Your task to perform on an android device: Show me popular videos on Youtube Image 0: 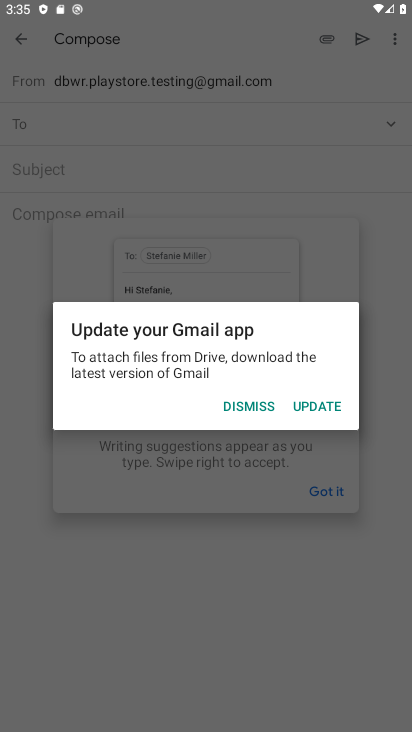
Step 0: press back button
Your task to perform on an android device: Show me popular videos on Youtube Image 1: 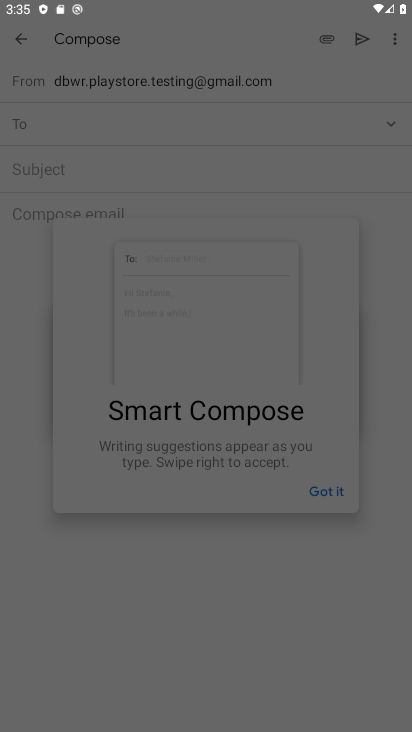
Step 1: press home button
Your task to perform on an android device: Show me popular videos on Youtube Image 2: 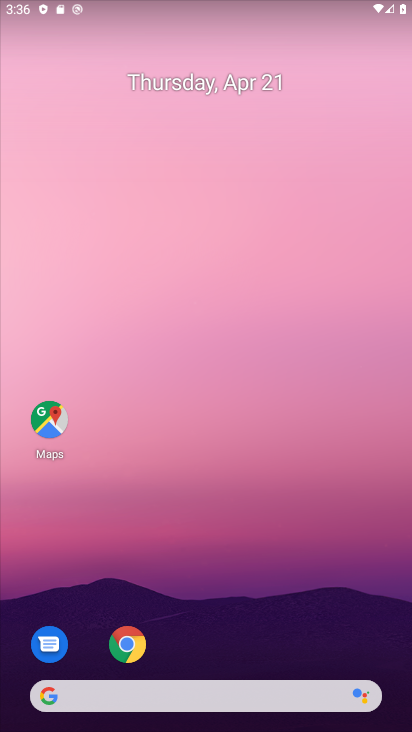
Step 2: drag from (200, 343) to (208, 255)
Your task to perform on an android device: Show me popular videos on Youtube Image 3: 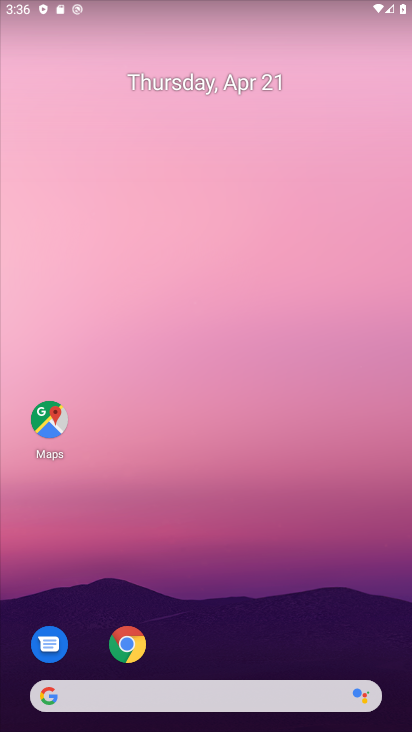
Step 3: drag from (240, 630) to (259, 209)
Your task to perform on an android device: Show me popular videos on Youtube Image 4: 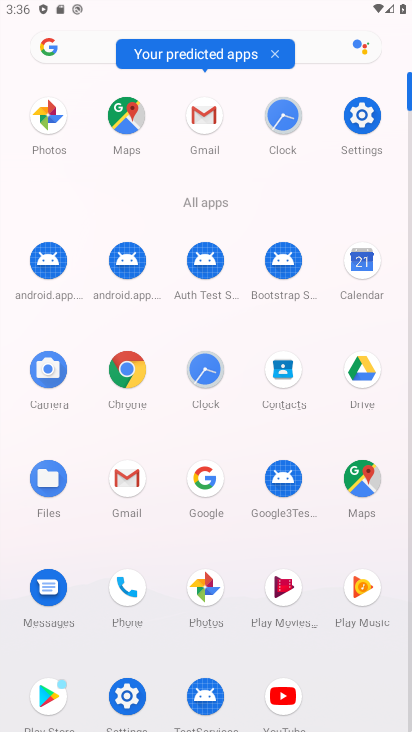
Step 4: click (290, 690)
Your task to perform on an android device: Show me popular videos on Youtube Image 5: 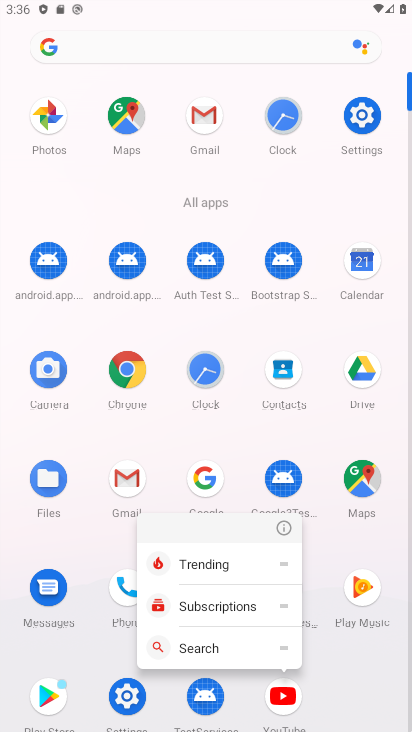
Step 5: click (279, 699)
Your task to perform on an android device: Show me popular videos on Youtube Image 6: 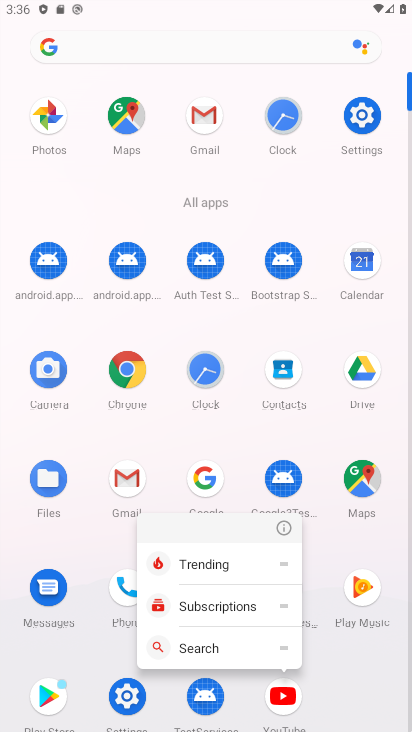
Step 6: click (288, 523)
Your task to perform on an android device: Show me popular videos on Youtube Image 7: 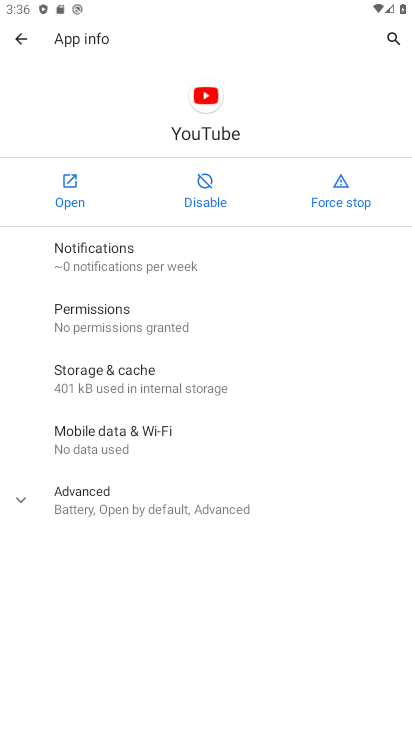
Step 7: click (68, 198)
Your task to perform on an android device: Show me popular videos on Youtube Image 8: 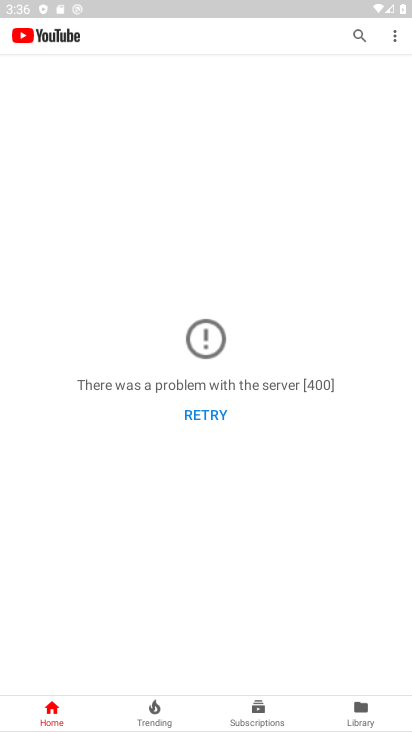
Step 8: click (160, 715)
Your task to perform on an android device: Show me popular videos on Youtube Image 9: 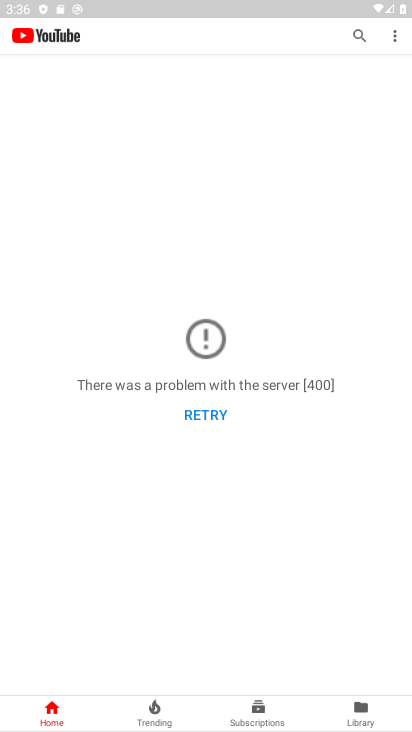
Step 9: task complete